Your task to perform on an android device: toggle sleep mode Image 0: 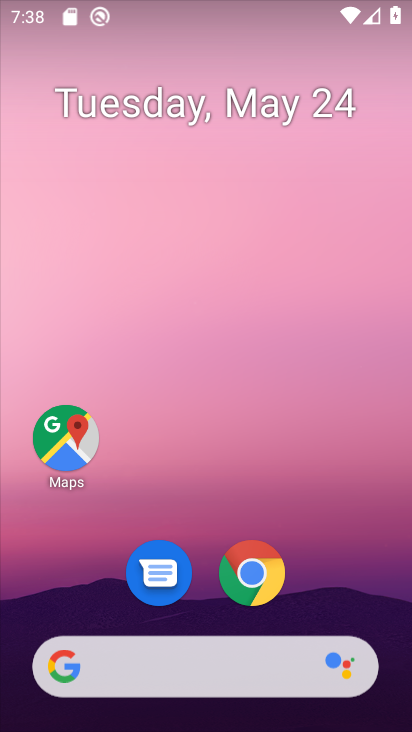
Step 0: drag from (346, 581) to (360, 95)
Your task to perform on an android device: toggle sleep mode Image 1: 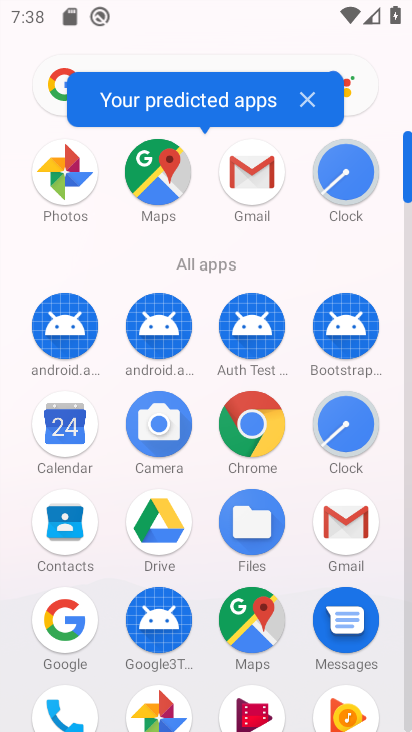
Step 1: drag from (406, 495) to (405, 219)
Your task to perform on an android device: toggle sleep mode Image 2: 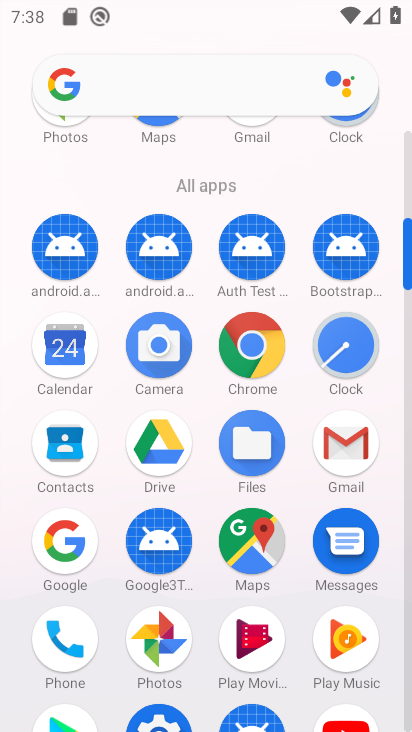
Step 2: drag from (394, 681) to (378, 319)
Your task to perform on an android device: toggle sleep mode Image 3: 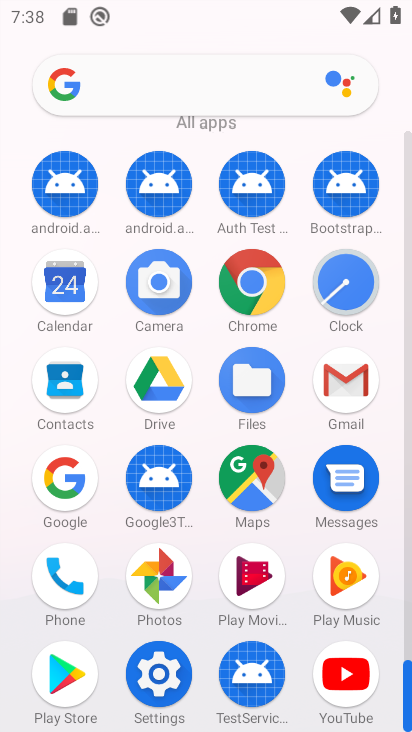
Step 3: click (156, 665)
Your task to perform on an android device: toggle sleep mode Image 4: 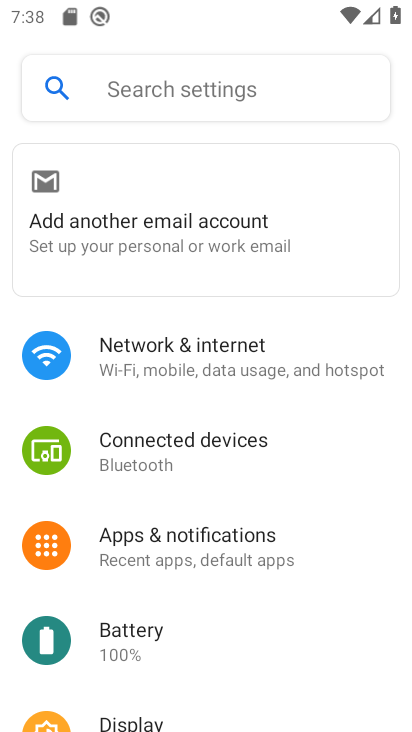
Step 4: drag from (206, 676) to (188, 324)
Your task to perform on an android device: toggle sleep mode Image 5: 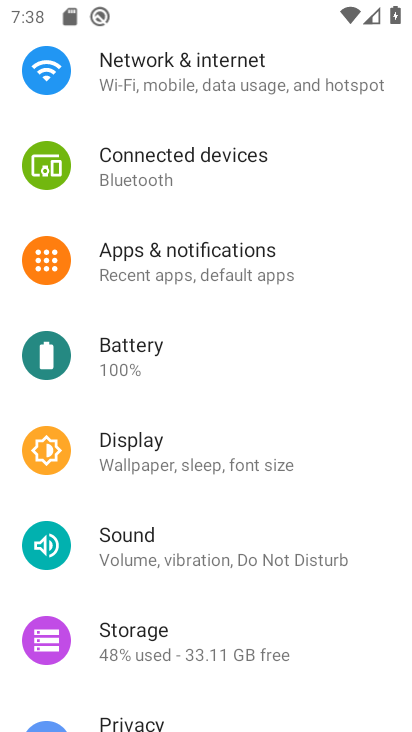
Step 5: click (148, 437)
Your task to perform on an android device: toggle sleep mode Image 6: 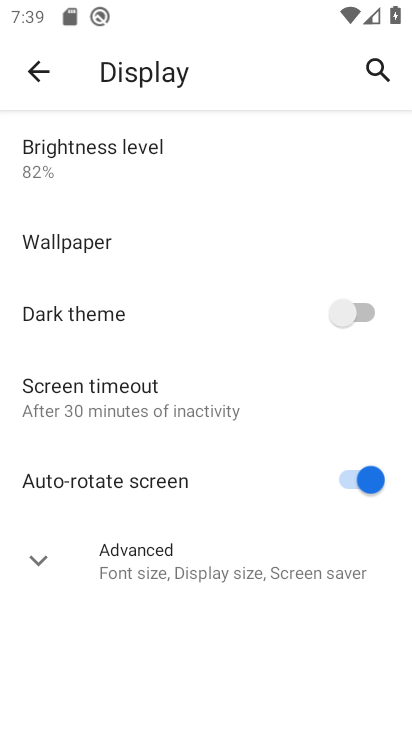
Step 6: click (146, 418)
Your task to perform on an android device: toggle sleep mode Image 7: 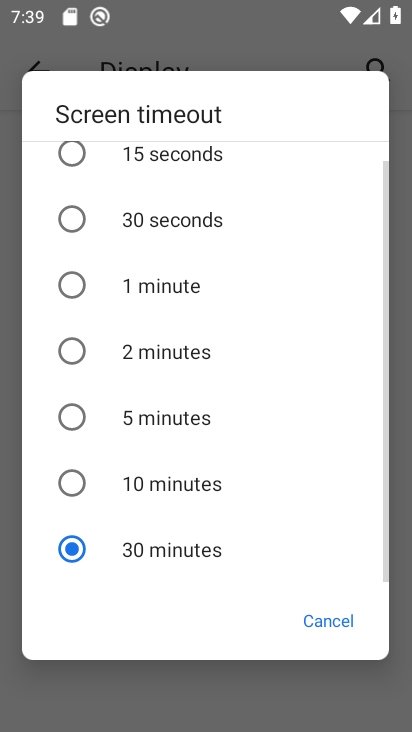
Step 7: click (136, 356)
Your task to perform on an android device: toggle sleep mode Image 8: 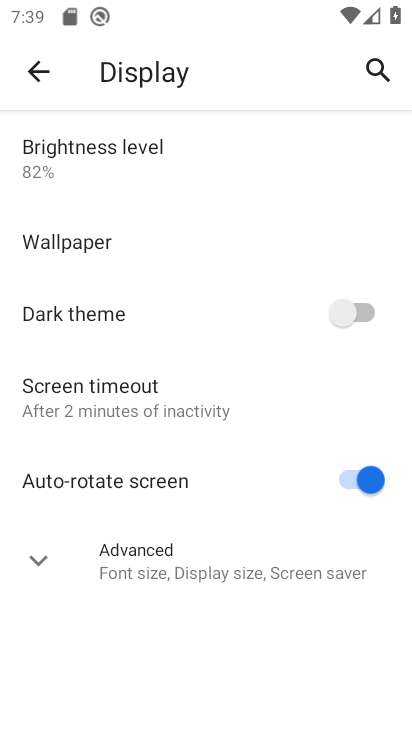
Step 8: task complete